Your task to perform on an android device: Go to Reddit.com Image 0: 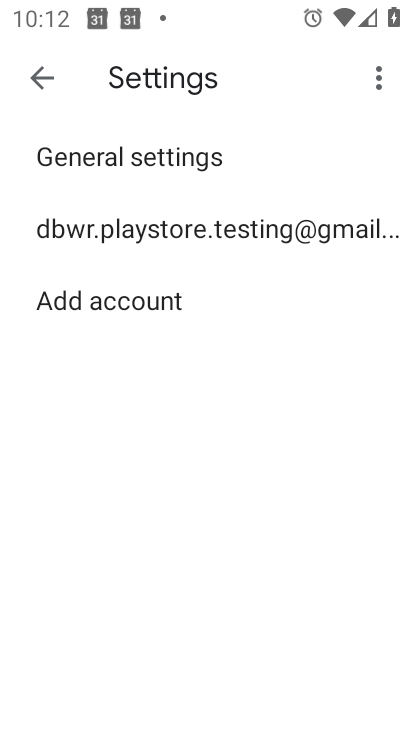
Step 0: press home button
Your task to perform on an android device: Go to Reddit.com Image 1: 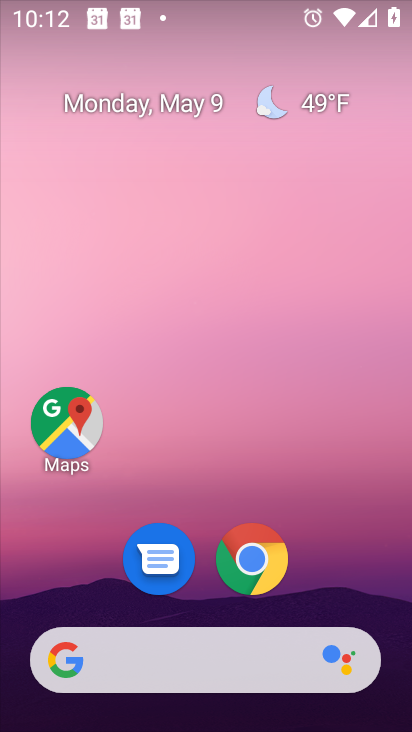
Step 1: click (250, 557)
Your task to perform on an android device: Go to Reddit.com Image 2: 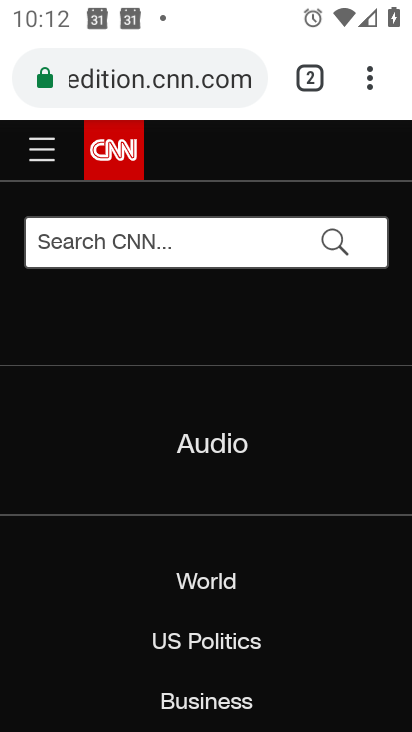
Step 2: click (369, 87)
Your task to perform on an android device: Go to Reddit.com Image 3: 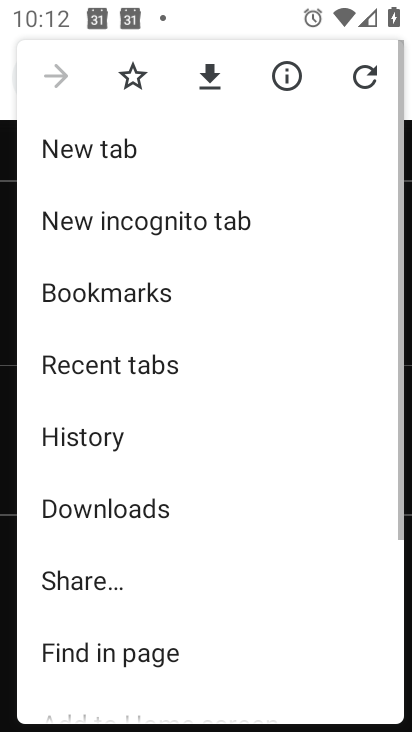
Step 3: click (108, 150)
Your task to perform on an android device: Go to Reddit.com Image 4: 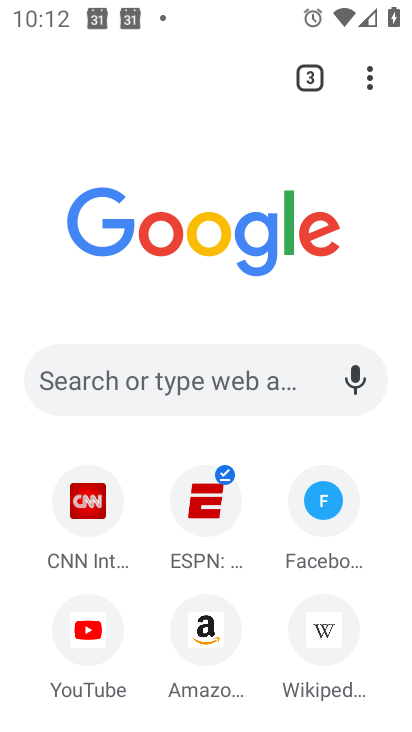
Step 4: click (224, 376)
Your task to perform on an android device: Go to Reddit.com Image 5: 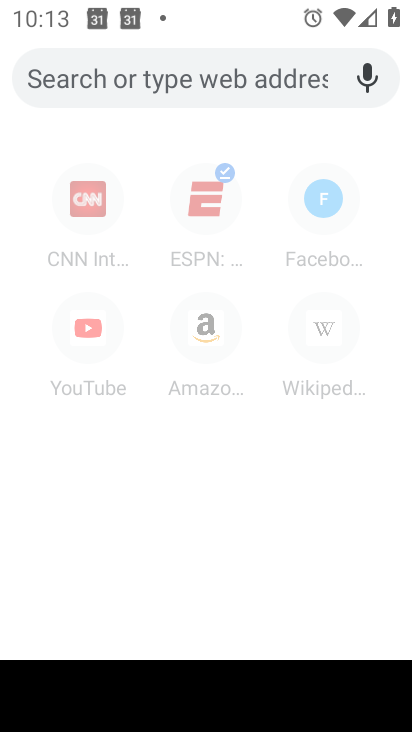
Step 5: type "Reddit.com"
Your task to perform on an android device: Go to Reddit.com Image 6: 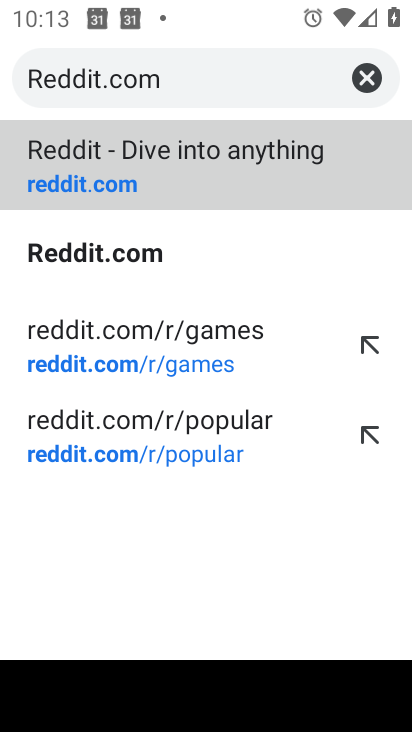
Step 6: click (69, 160)
Your task to perform on an android device: Go to Reddit.com Image 7: 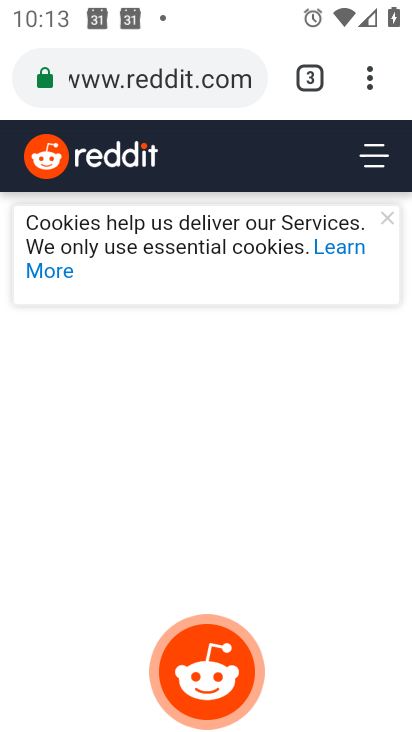
Step 7: task complete